Your task to perform on an android device: Open Android settings Image 0: 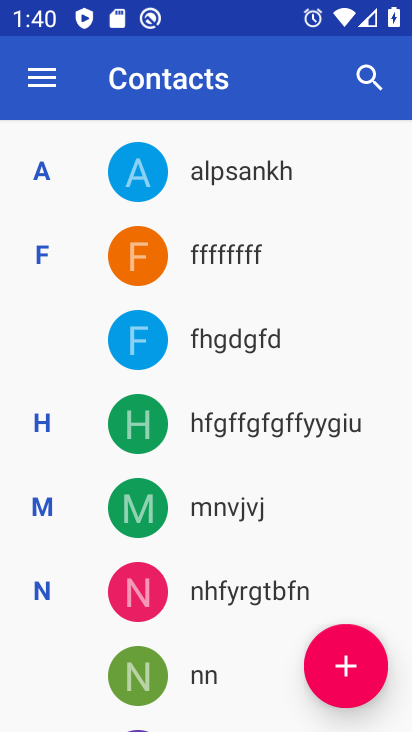
Step 0: press home button
Your task to perform on an android device: Open Android settings Image 1: 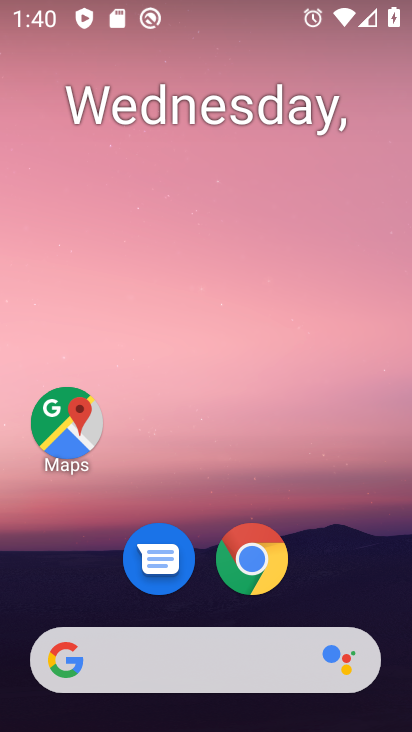
Step 1: drag from (382, 577) to (335, 110)
Your task to perform on an android device: Open Android settings Image 2: 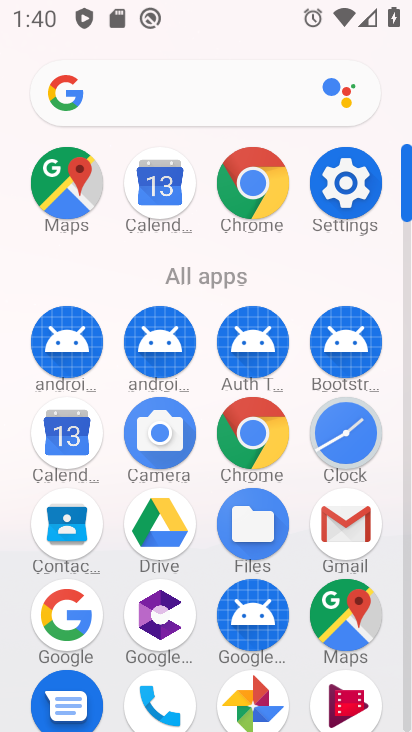
Step 2: click (359, 192)
Your task to perform on an android device: Open Android settings Image 3: 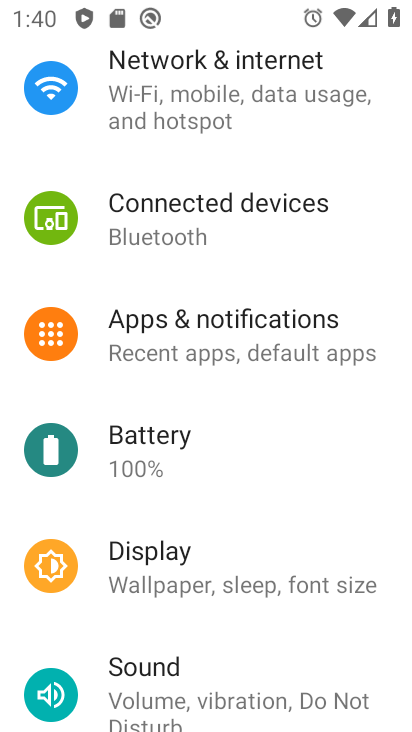
Step 3: task complete